Your task to perform on an android device: delete browsing data in the chrome app Image 0: 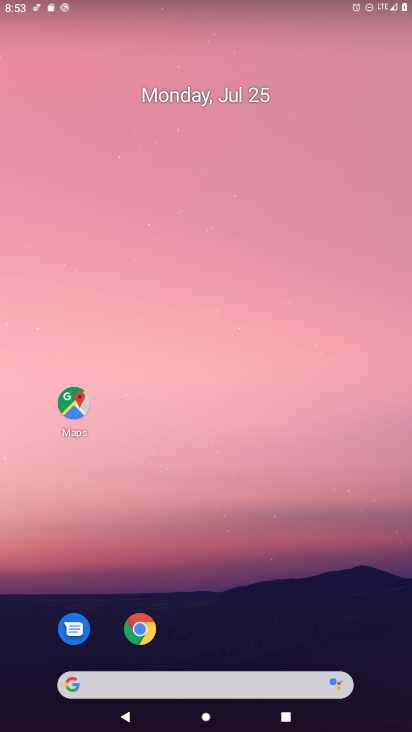
Step 0: click (141, 630)
Your task to perform on an android device: delete browsing data in the chrome app Image 1: 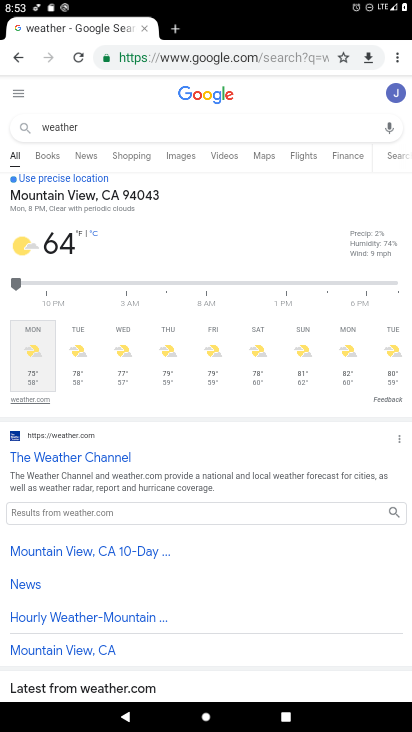
Step 1: click (399, 55)
Your task to perform on an android device: delete browsing data in the chrome app Image 2: 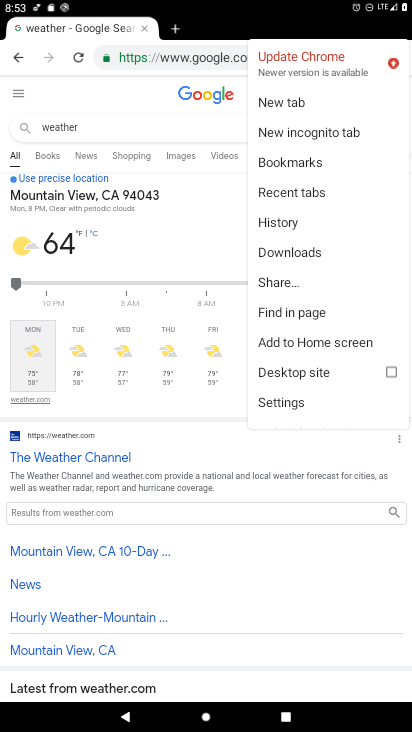
Step 2: click (290, 401)
Your task to perform on an android device: delete browsing data in the chrome app Image 3: 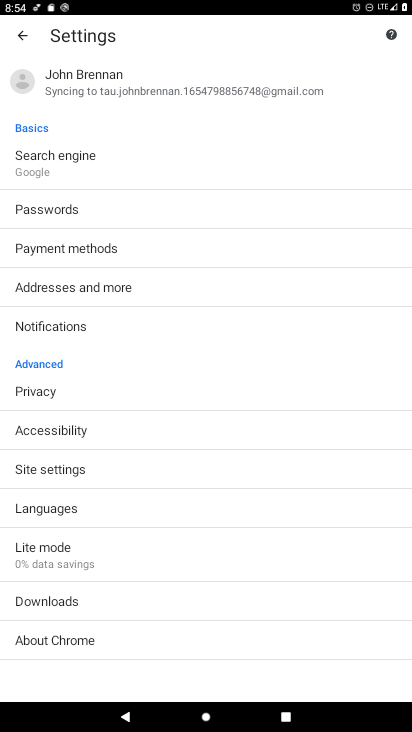
Step 3: click (44, 391)
Your task to perform on an android device: delete browsing data in the chrome app Image 4: 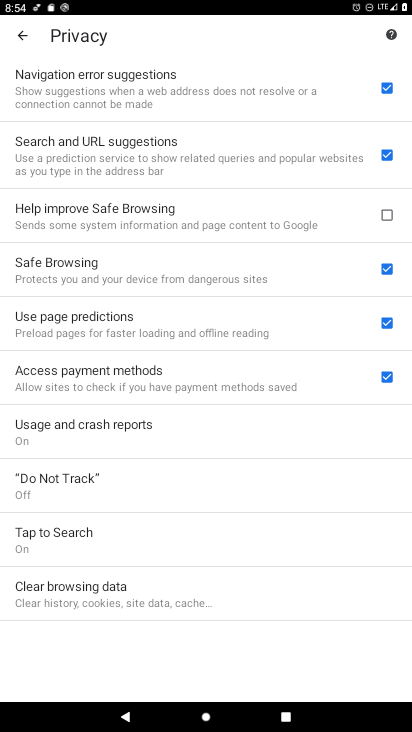
Step 4: click (89, 590)
Your task to perform on an android device: delete browsing data in the chrome app Image 5: 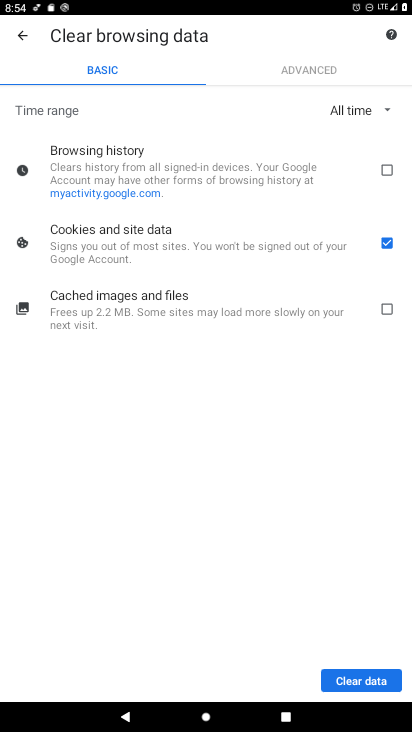
Step 5: click (390, 166)
Your task to perform on an android device: delete browsing data in the chrome app Image 6: 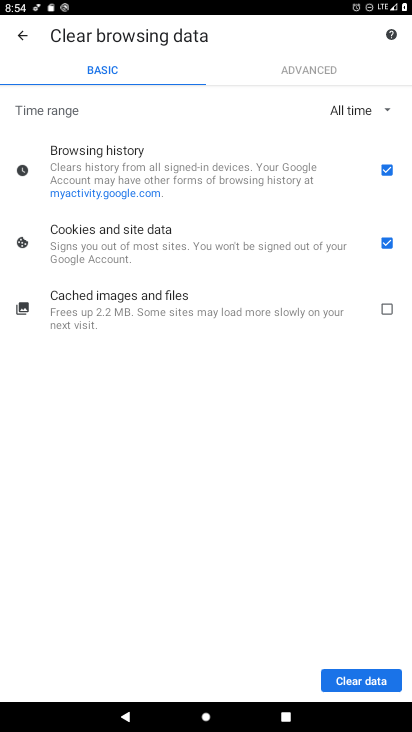
Step 6: click (391, 313)
Your task to perform on an android device: delete browsing data in the chrome app Image 7: 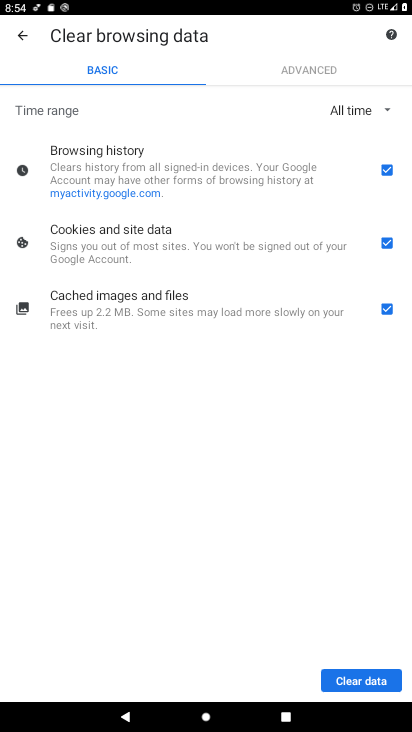
Step 7: click (359, 683)
Your task to perform on an android device: delete browsing data in the chrome app Image 8: 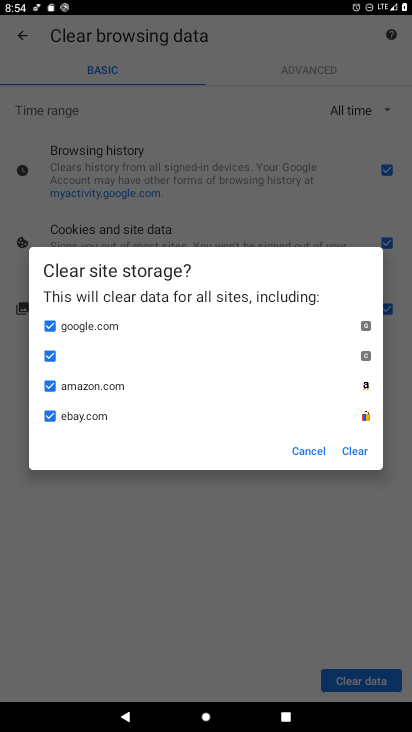
Step 8: click (355, 447)
Your task to perform on an android device: delete browsing data in the chrome app Image 9: 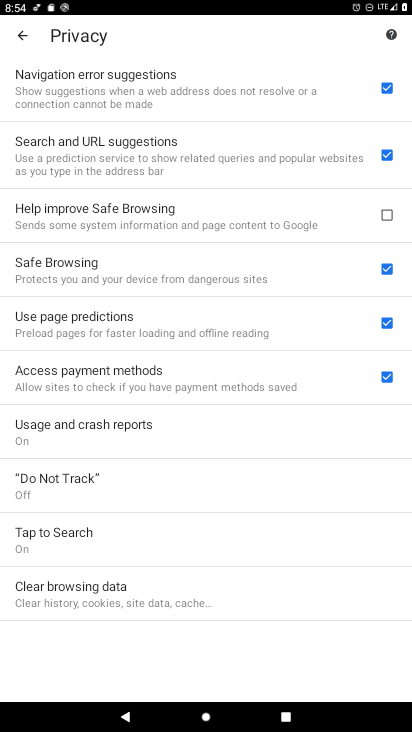
Step 9: task complete